Your task to perform on an android device: turn on sleep mode Image 0: 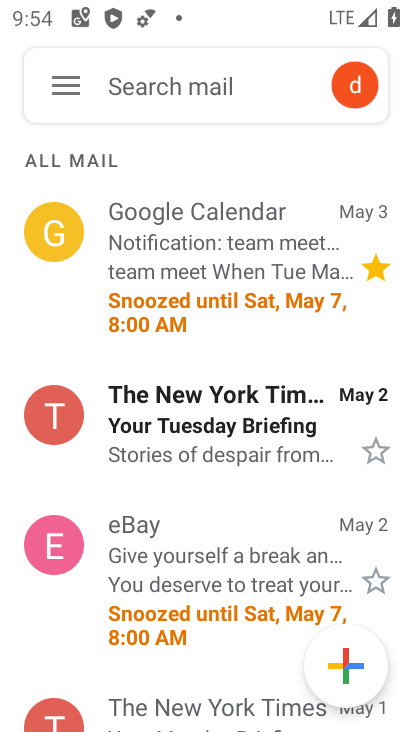
Step 0: press home button
Your task to perform on an android device: turn on sleep mode Image 1: 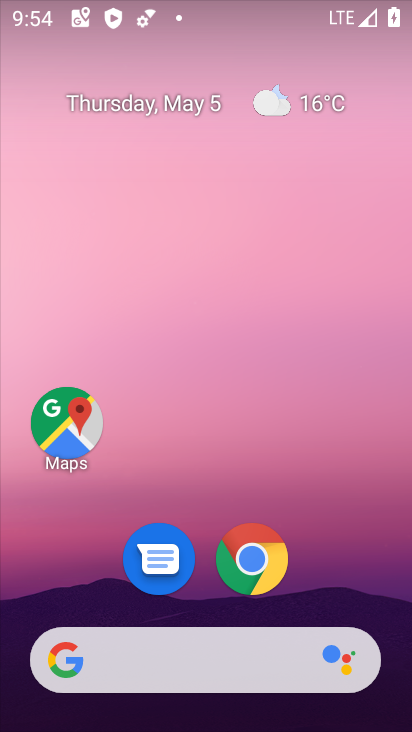
Step 1: drag from (204, 577) to (240, 107)
Your task to perform on an android device: turn on sleep mode Image 2: 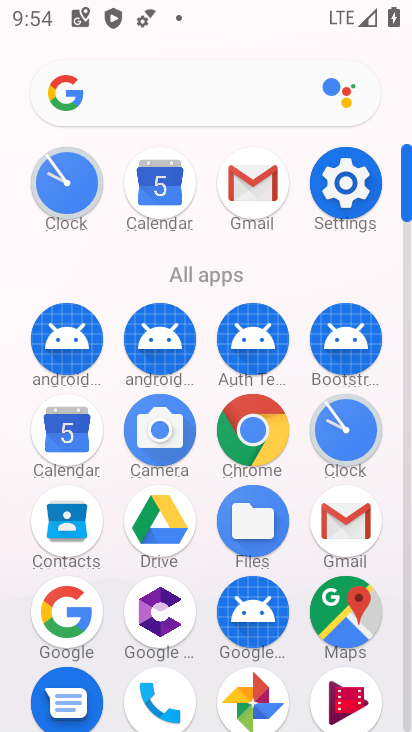
Step 2: click (334, 189)
Your task to perform on an android device: turn on sleep mode Image 3: 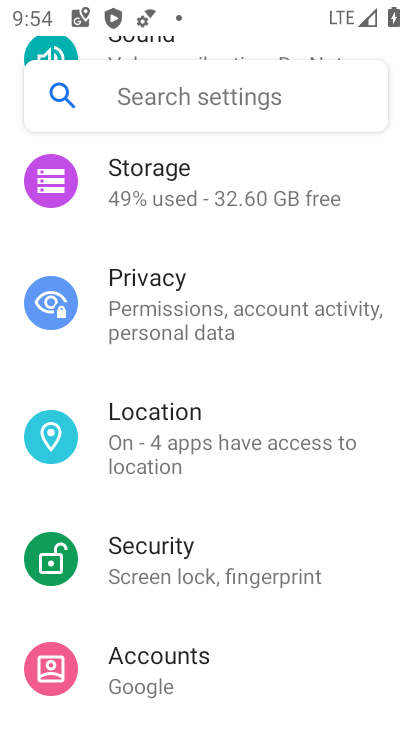
Step 3: click (246, 101)
Your task to perform on an android device: turn on sleep mode Image 4: 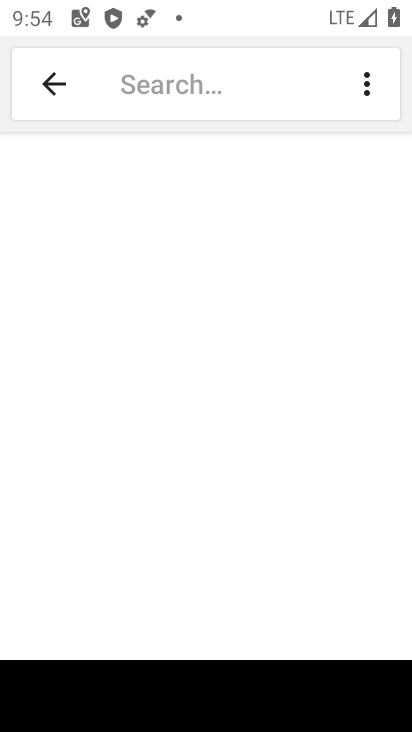
Step 4: type "sleep mode"
Your task to perform on an android device: turn on sleep mode Image 5: 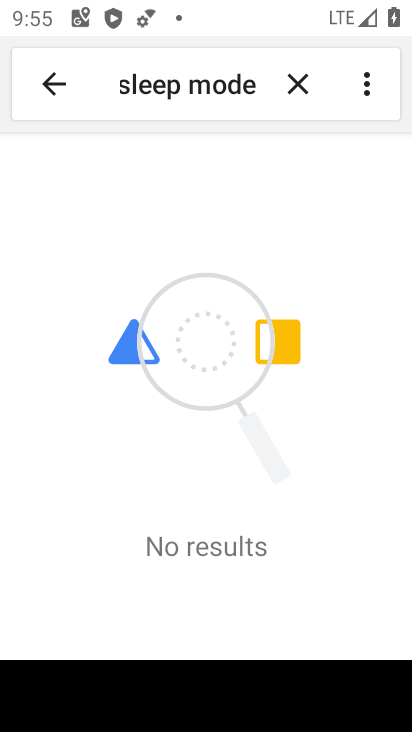
Step 5: task complete